Your task to perform on an android device: Search for vegetarian restaurants on Maps Image 0: 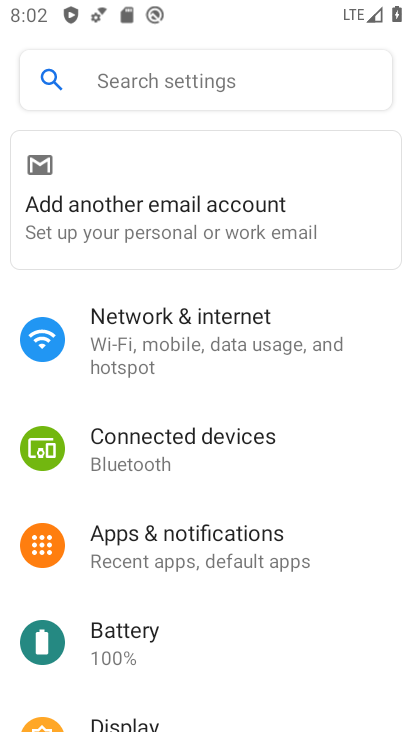
Step 0: press home button
Your task to perform on an android device: Search for vegetarian restaurants on Maps Image 1: 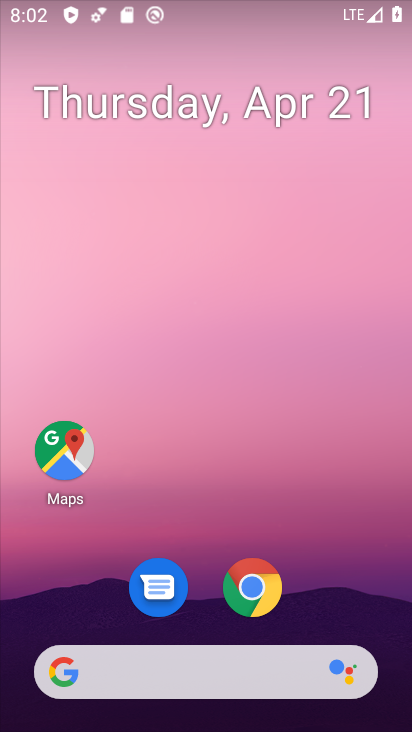
Step 1: click (55, 439)
Your task to perform on an android device: Search for vegetarian restaurants on Maps Image 2: 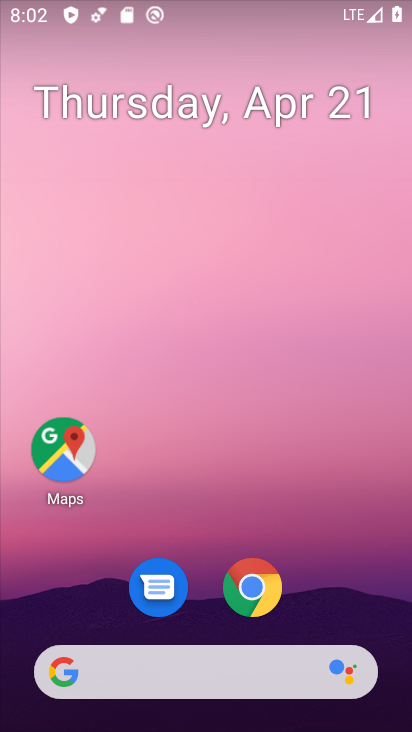
Step 2: click (55, 439)
Your task to perform on an android device: Search for vegetarian restaurants on Maps Image 3: 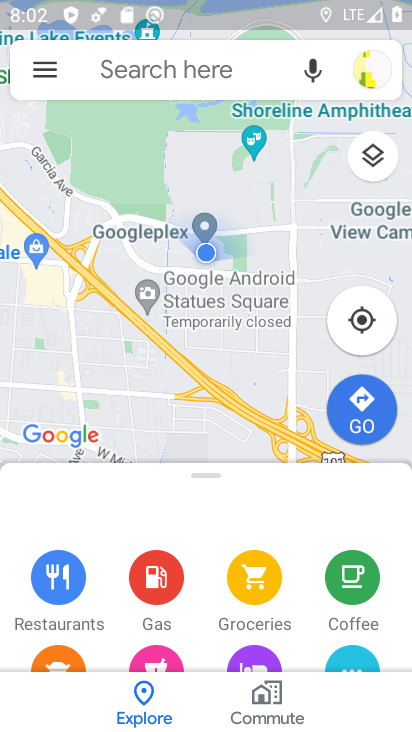
Step 3: click (129, 71)
Your task to perform on an android device: Search for vegetarian restaurants on Maps Image 4: 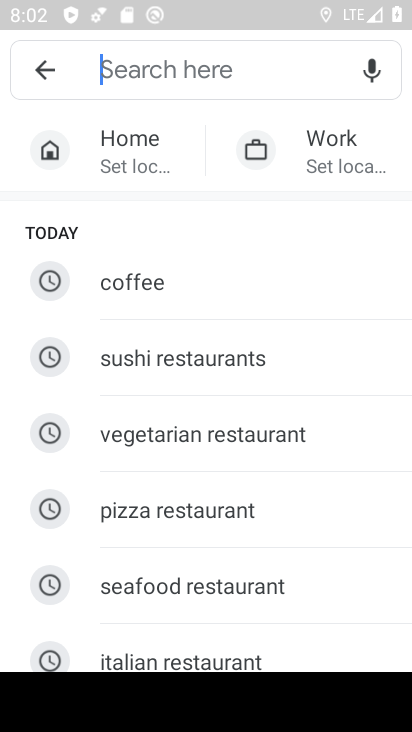
Step 4: click (201, 430)
Your task to perform on an android device: Search for vegetarian restaurants on Maps Image 5: 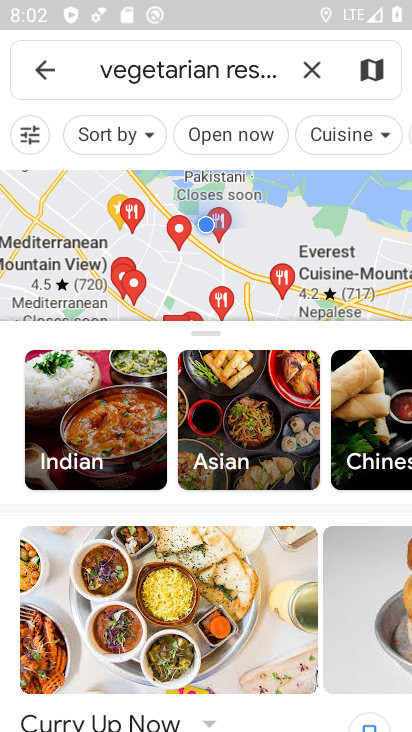
Step 5: task complete